Your task to perform on an android device: turn off notifications in google photos Image 0: 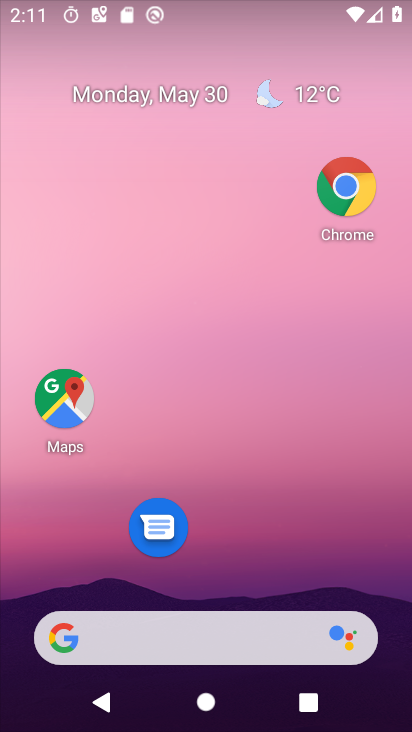
Step 0: click (233, 296)
Your task to perform on an android device: turn off notifications in google photos Image 1: 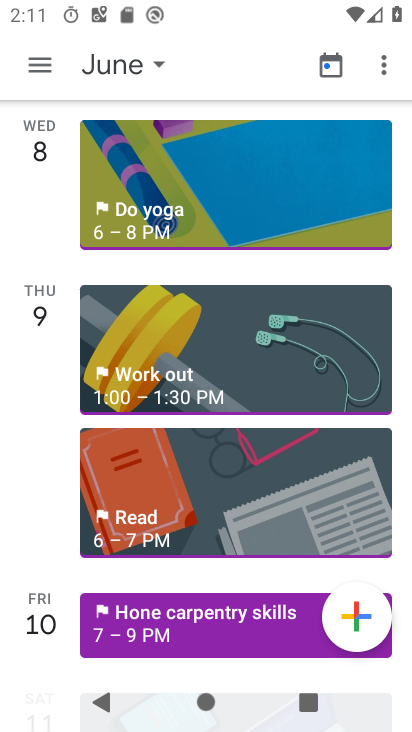
Step 1: press home button
Your task to perform on an android device: turn off notifications in google photos Image 2: 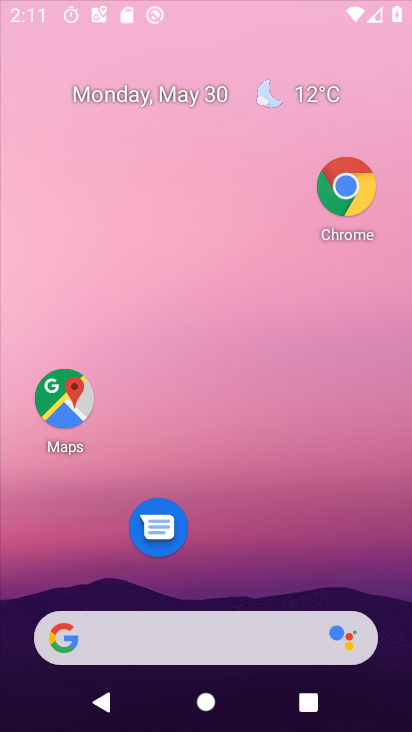
Step 2: drag from (182, 610) to (209, 85)
Your task to perform on an android device: turn off notifications in google photos Image 3: 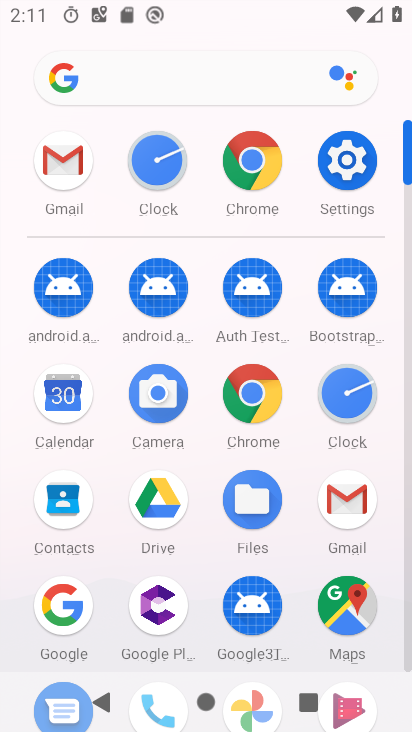
Step 3: drag from (218, 662) to (230, 412)
Your task to perform on an android device: turn off notifications in google photos Image 4: 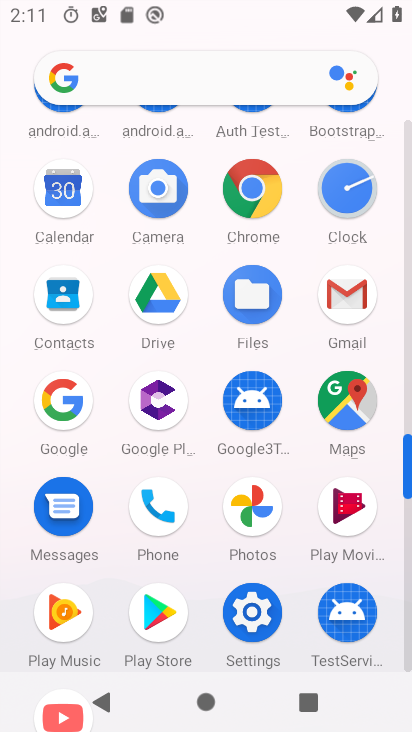
Step 4: click (259, 517)
Your task to perform on an android device: turn off notifications in google photos Image 5: 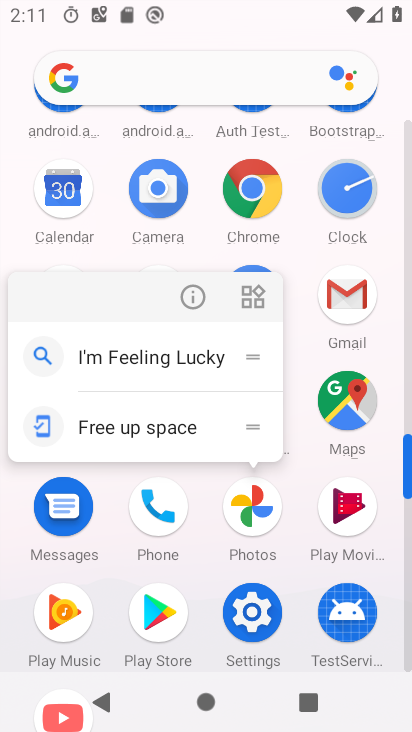
Step 5: click (186, 297)
Your task to perform on an android device: turn off notifications in google photos Image 6: 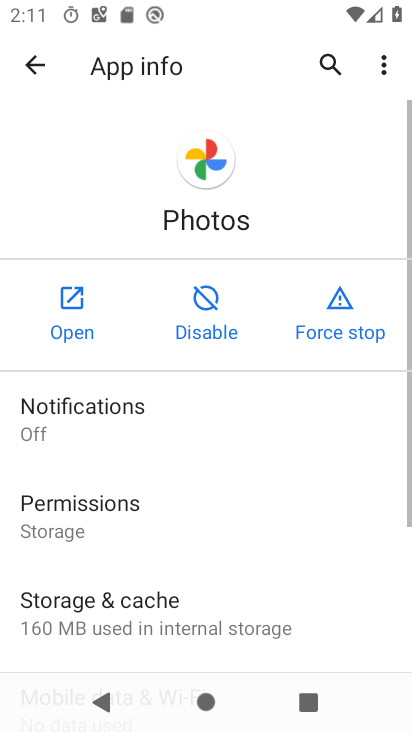
Step 6: click (78, 297)
Your task to perform on an android device: turn off notifications in google photos Image 7: 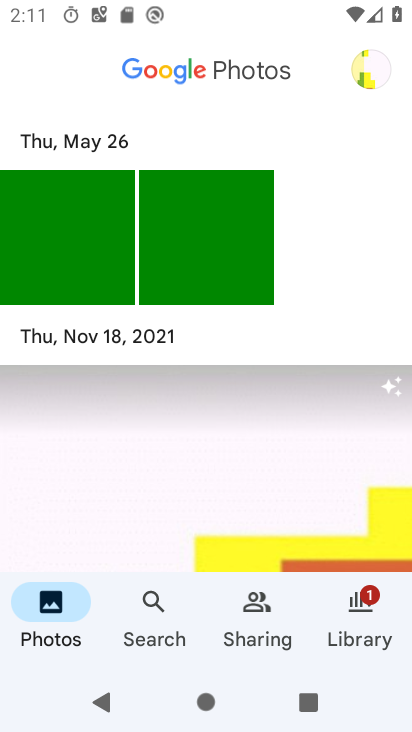
Step 7: click (370, 74)
Your task to perform on an android device: turn off notifications in google photos Image 8: 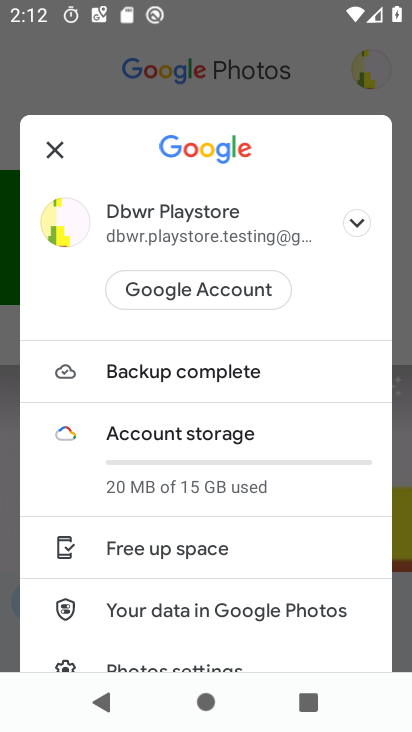
Step 8: drag from (214, 631) to (335, 206)
Your task to perform on an android device: turn off notifications in google photos Image 9: 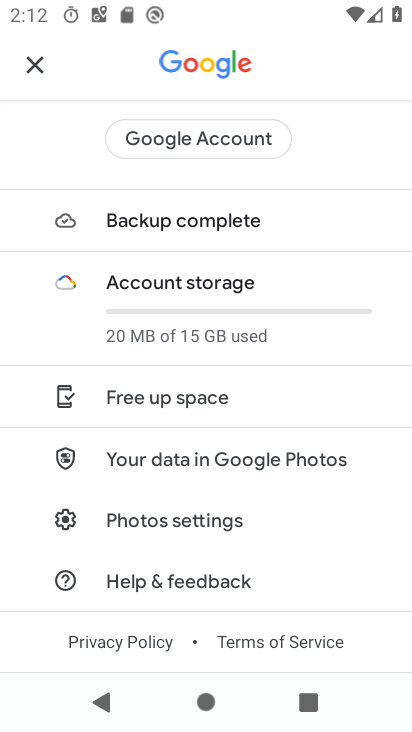
Step 9: click (156, 523)
Your task to perform on an android device: turn off notifications in google photos Image 10: 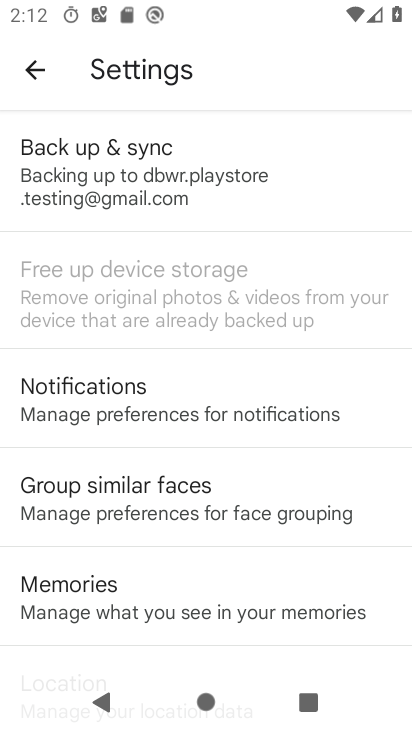
Step 10: click (126, 388)
Your task to perform on an android device: turn off notifications in google photos Image 11: 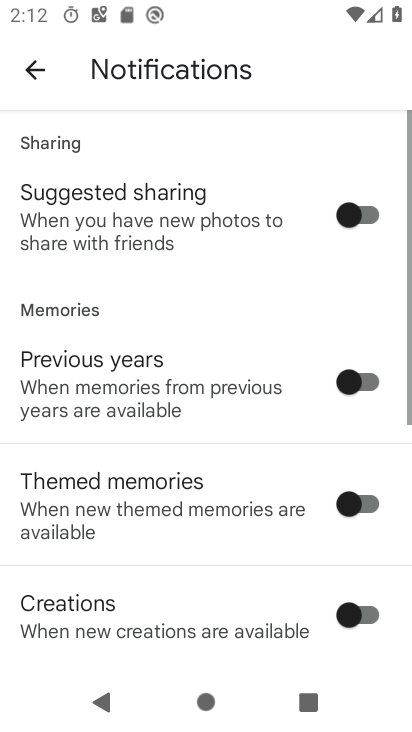
Step 11: drag from (225, 501) to (400, 38)
Your task to perform on an android device: turn off notifications in google photos Image 12: 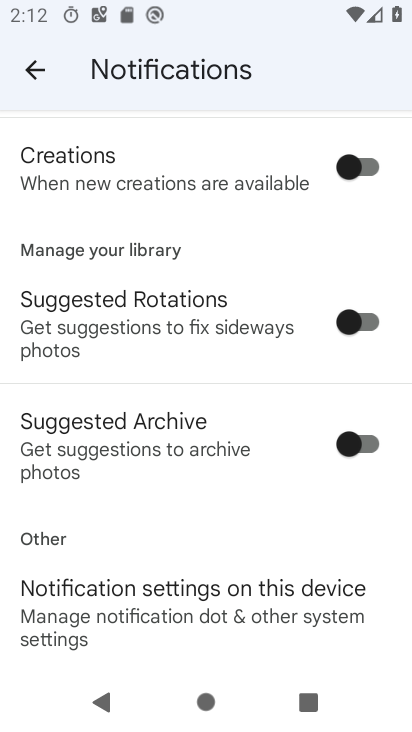
Step 12: drag from (175, 552) to (319, 152)
Your task to perform on an android device: turn off notifications in google photos Image 13: 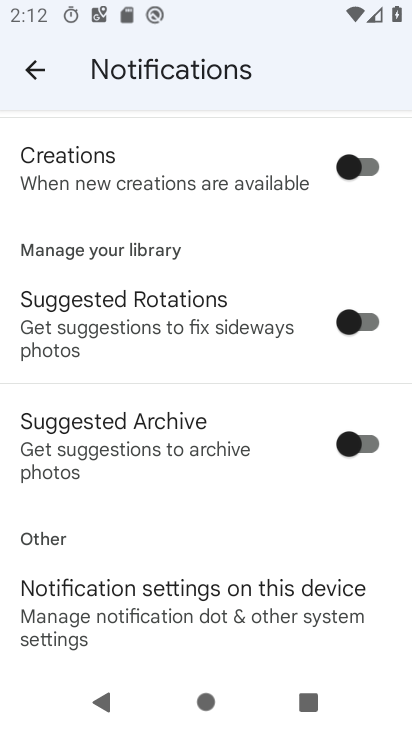
Step 13: click (184, 617)
Your task to perform on an android device: turn off notifications in google photos Image 14: 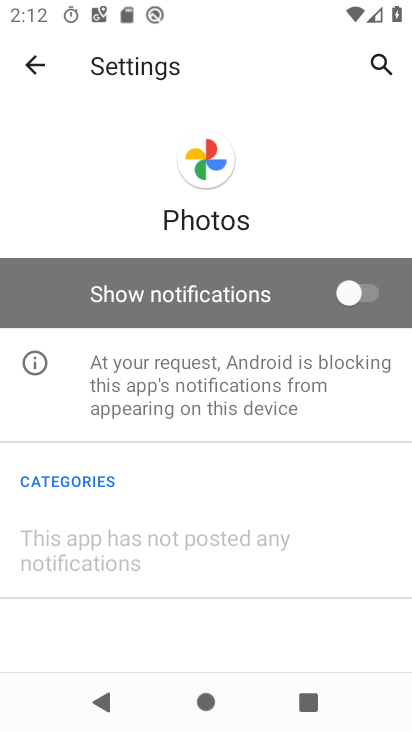
Step 14: task complete